Your task to perform on an android device: Open Google Chrome and click the shortcut for Amazon.com Image 0: 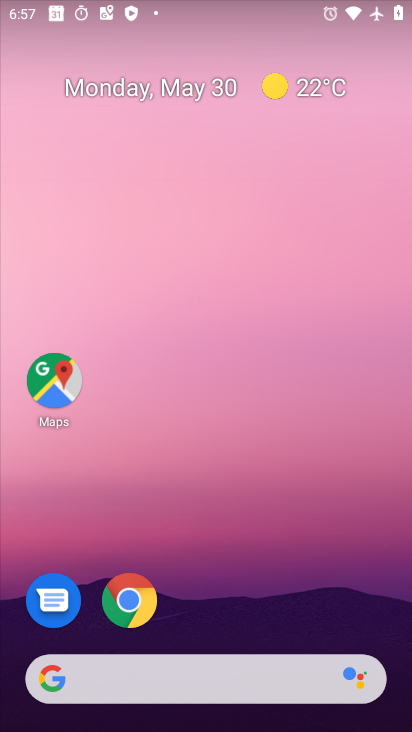
Step 0: press home button
Your task to perform on an android device: Open Google Chrome and click the shortcut for Amazon.com Image 1: 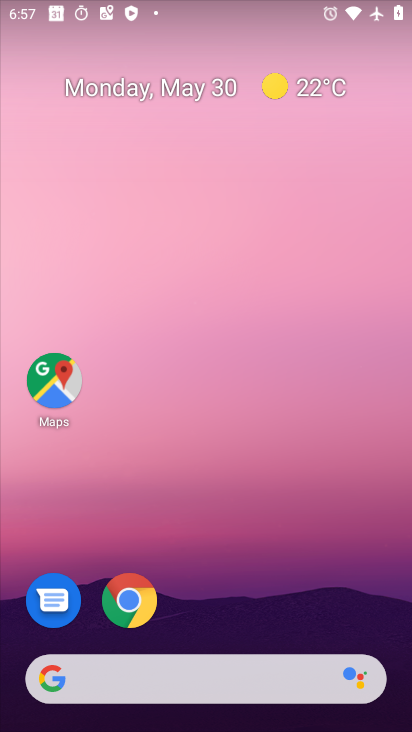
Step 1: click (134, 598)
Your task to perform on an android device: Open Google Chrome and click the shortcut for Amazon.com Image 2: 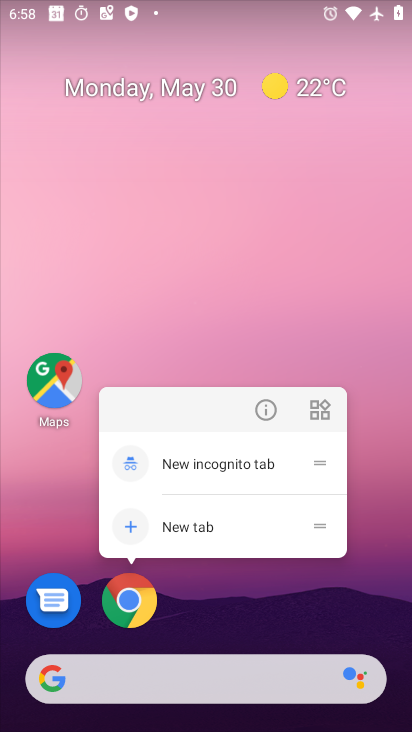
Step 2: drag from (240, 608) to (276, 138)
Your task to perform on an android device: Open Google Chrome and click the shortcut for Amazon.com Image 3: 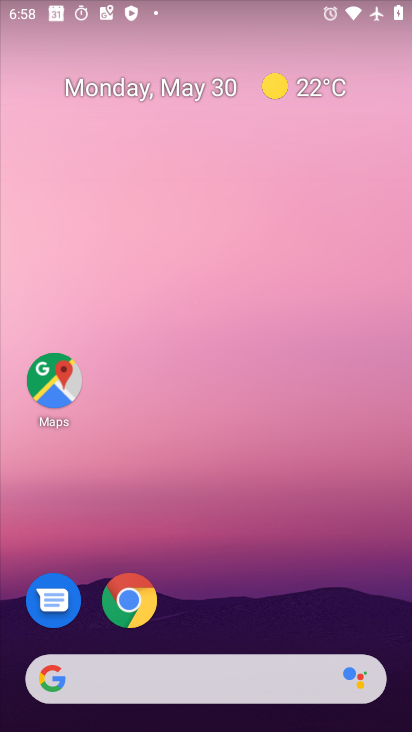
Step 3: drag from (305, 607) to (314, 191)
Your task to perform on an android device: Open Google Chrome and click the shortcut for Amazon.com Image 4: 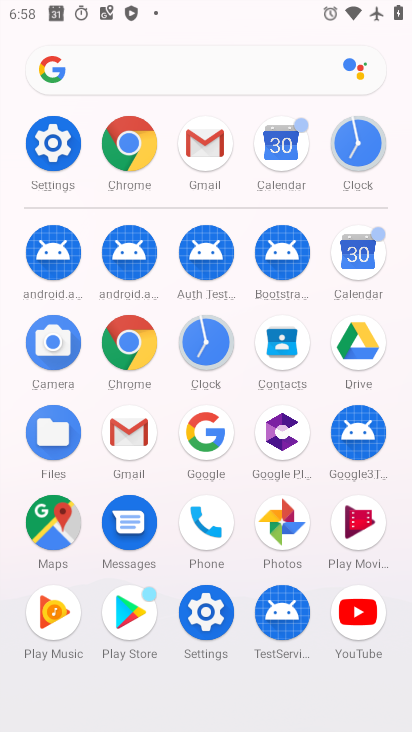
Step 4: click (130, 145)
Your task to perform on an android device: Open Google Chrome and click the shortcut for Amazon.com Image 5: 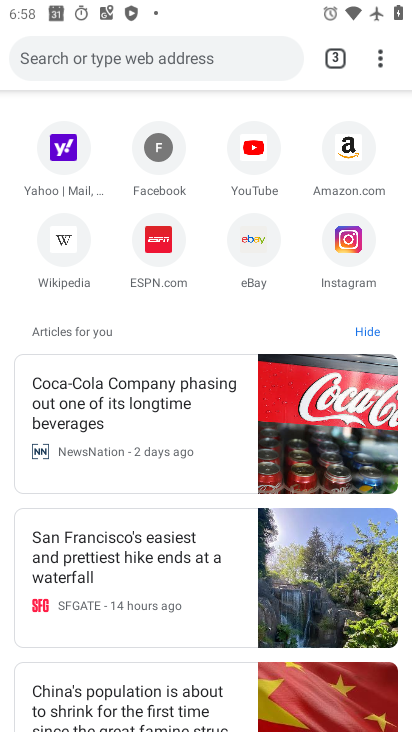
Step 5: click (349, 148)
Your task to perform on an android device: Open Google Chrome and click the shortcut for Amazon.com Image 6: 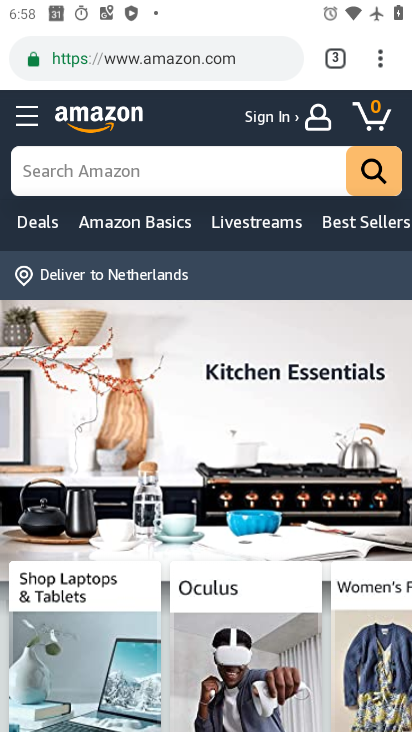
Step 6: task complete